Your task to perform on an android device: toggle location history Image 0: 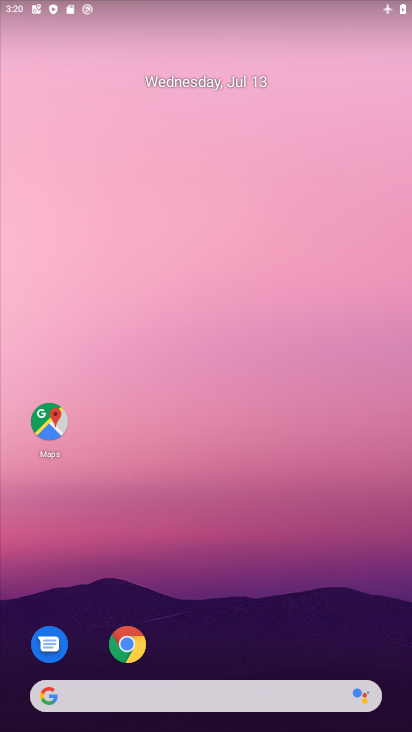
Step 0: drag from (270, 599) to (254, 131)
Your task to perform on an android device: toggle location history Image 1: 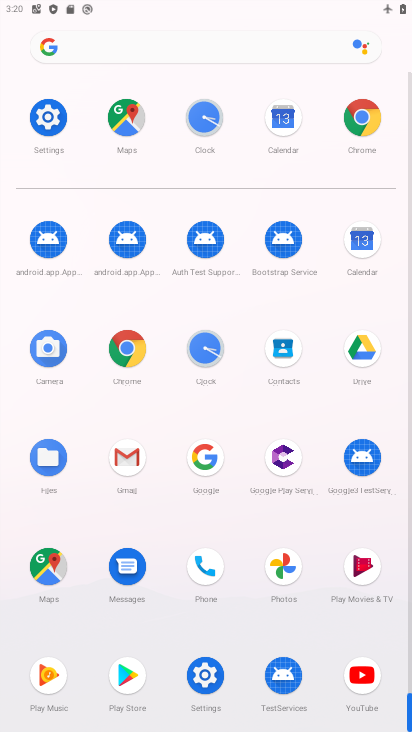
Step 1: click (52, 121)
Your task to perform on an android device: toggle location history Image 2: 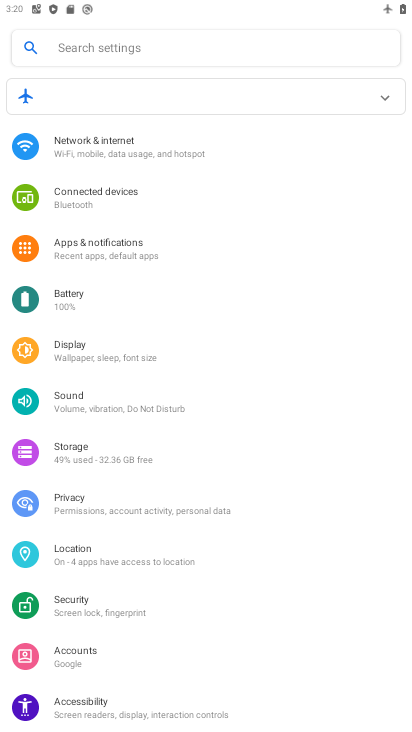
Step 2: click (81, 561)
Your task to perform on an android device: toggle location history Image 3: 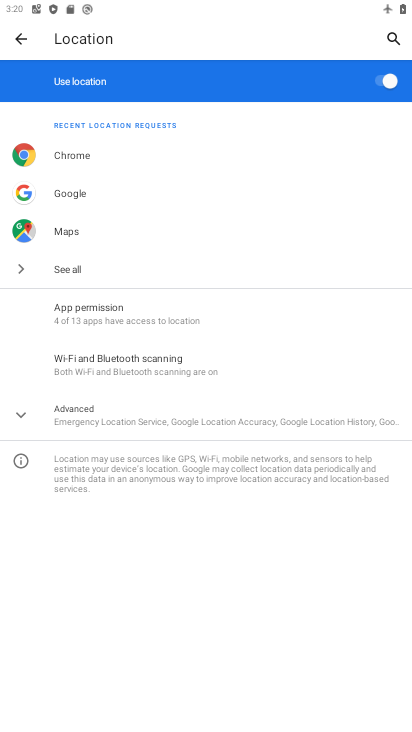
Step 3: click (137, 409)
Your task to perform on an android device: toggle location history Image 4: 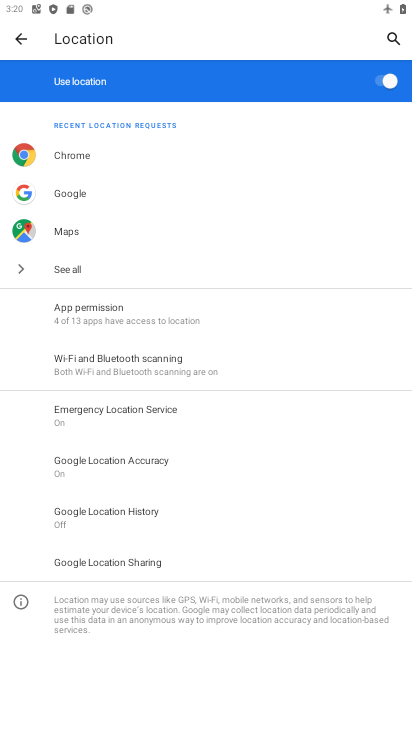
Step 4: click (136, 517)
Your task to perform on an android device: toggle location history Image 5: 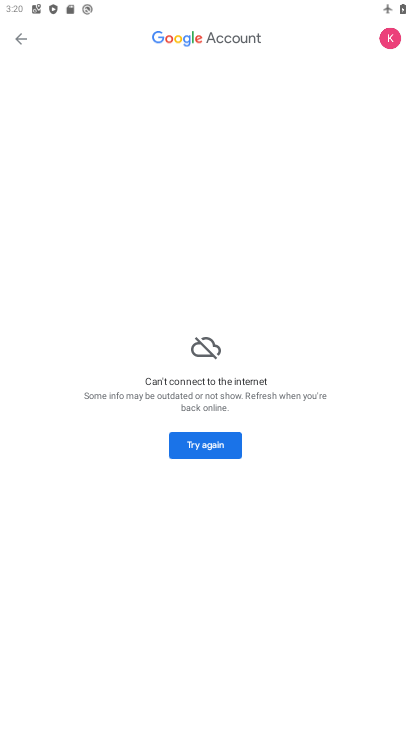
Step 5: task complete